Your task to perform on an android device: open app "LiveIn - Share Your Moment" (install if not already installed) Image 0: 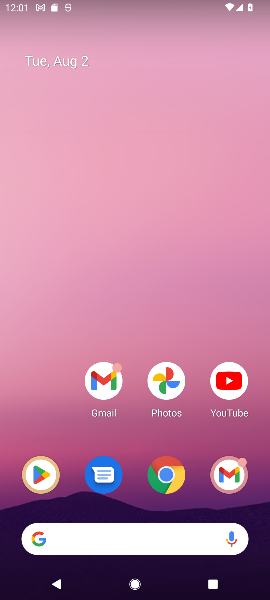
Step 0: click (34, 479)
Your task to perform on an android device: open app "LiveIn - Share Your Moment" (install if not already installed) Image 1: 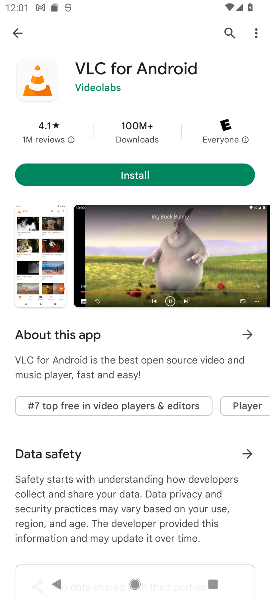
Step 1: click (225, 34)
Your task to perform on an android device: open app "LiveIn - Share Your Moment" (install if not already installed) Image 2: 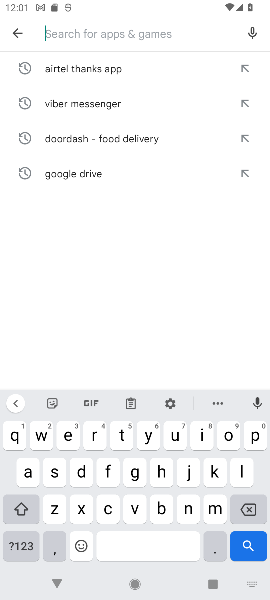
Step 2: type "LiveIn - Share Your Moment"
Your task to perform on an android device: open app "LiveIn - Share Your Moment" (install if not already installed) Image 3: 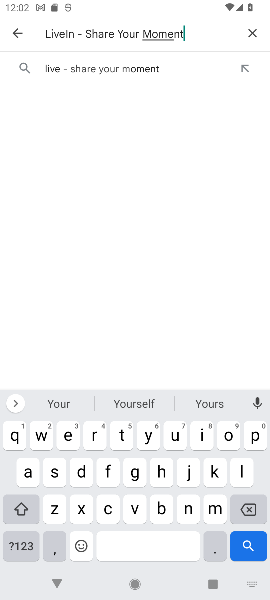
Step 3: type ""
Your task to perform on an android device: open app "LiveIn - Share Your Moment" (install if not already installed) Image 4: 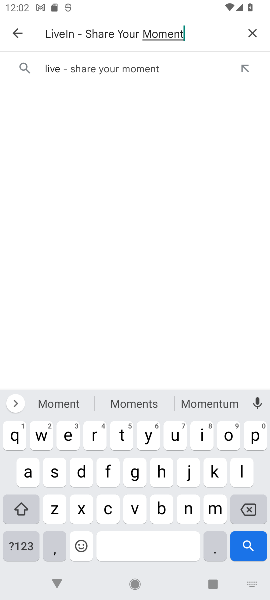
Step 4: click (87, 63)
Your task to perform on an android device: open app "LiveIn - Share Your Moment" (install if not already installed) Image 5: 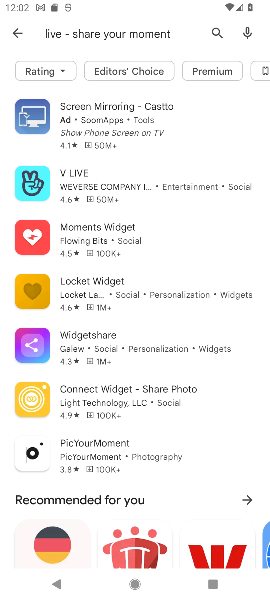
Step 5: task complete